Your task to perform on an android device: choose inbox layout in the gmail app Image 0: 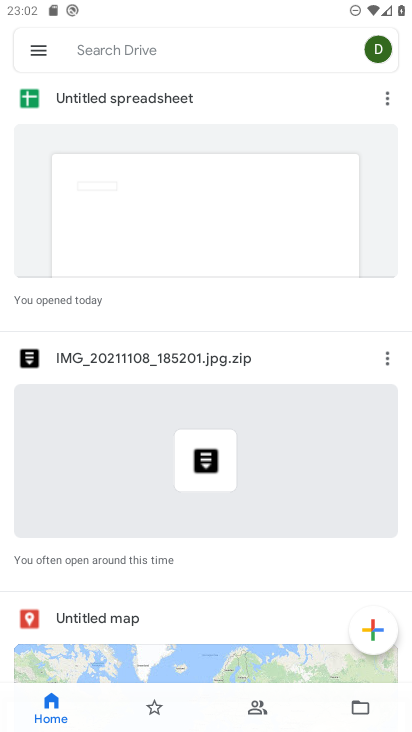
Step 0: press back button
Your task to perform on an android device: choose inbox layout in the gmail app Image 1: 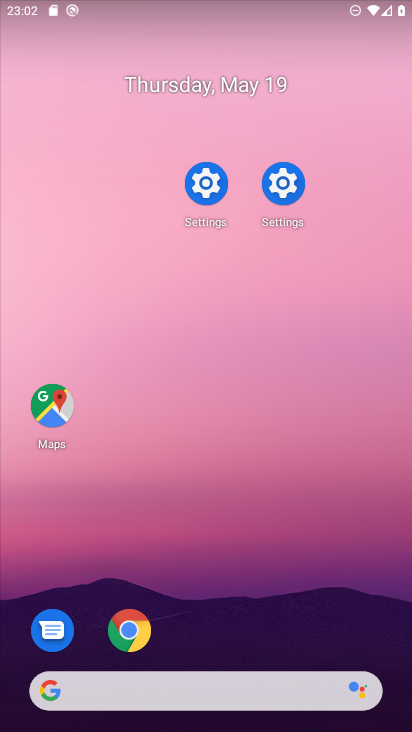
Step 1: drag from (229, 560) to (147, 108)
Your task to perform on an android device: choose inbox layout in the gmail app Image 2: 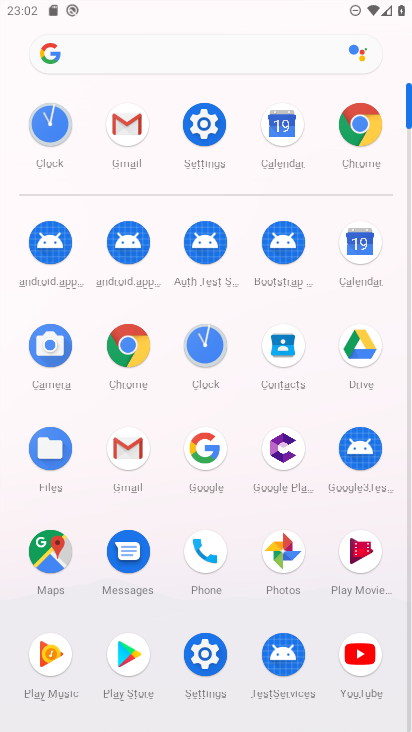
Step 2: click (119, 134)
Your task to perform on an android device: choose inbox layout in the gmail app Image 3: 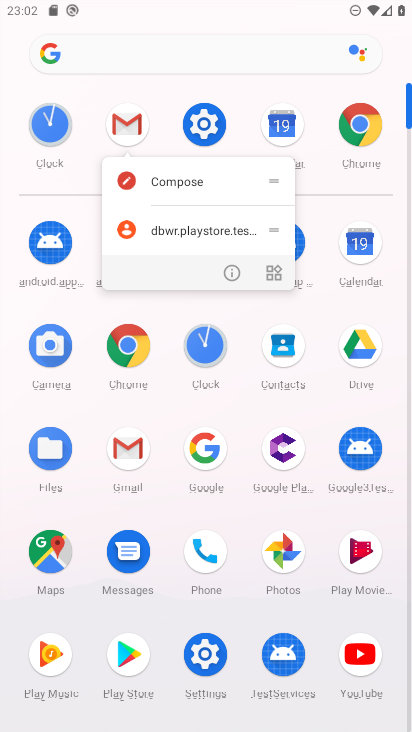
Step 3: click (130, 139)
Your task to perform on an android device: choose inbox layout in the gmail app Image 4: 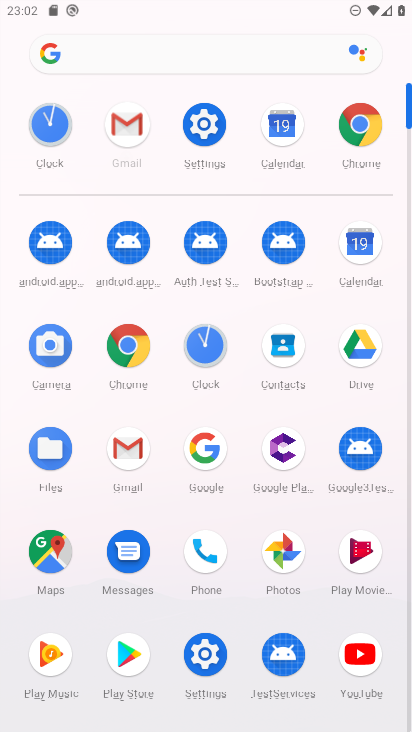
Step 4: click (130, 139)
Your task to perform on an android device: choose inbox layout in the gmail app Image 5: 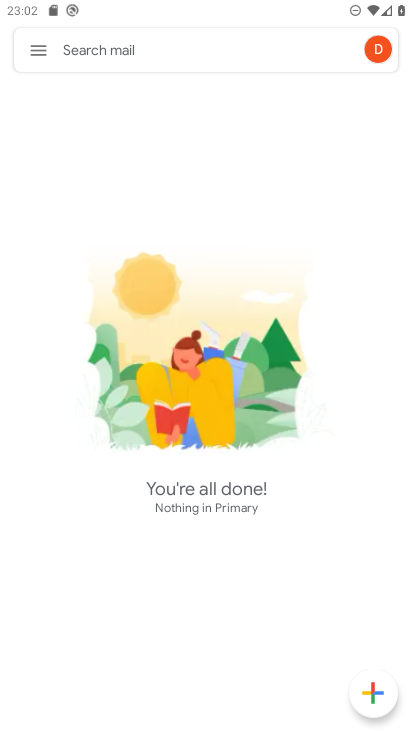
Step 5: click (42, 46)
Your task to perform on an android device: choose inbox layout in the gmail app Image 6: 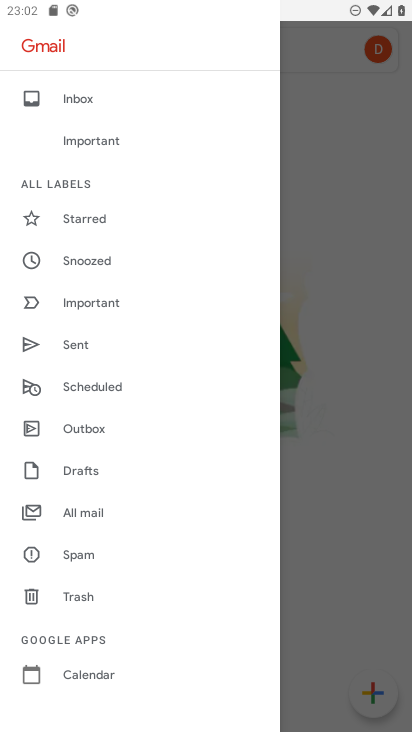
Step 6: click (75, 506)
Your task to perform on an android device: choose inbox layout in the gmail app Image 7: 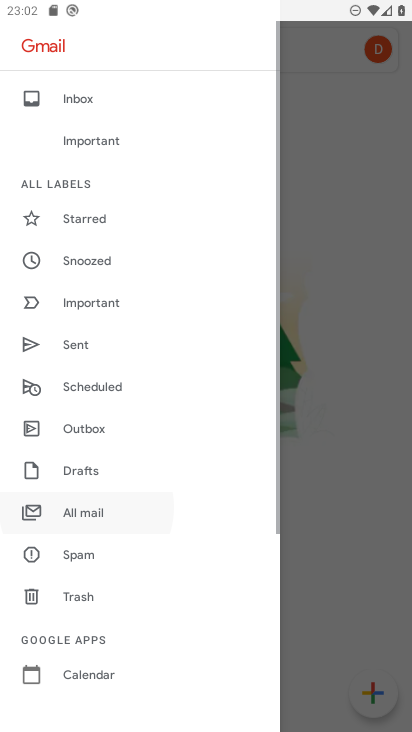
Step 7: click (75, 506)
Your task to perform on an android device: choose inbox layout in the gmail app Image 8: 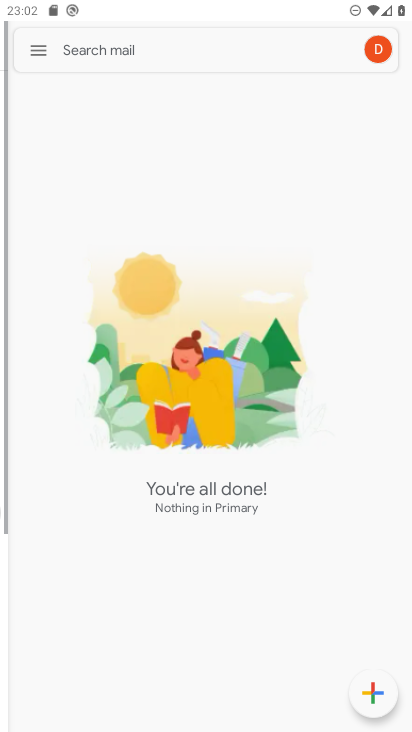
Step 8: click (76, 507)
Your task to perform on an android device: choose inbox layout in the gmail app Image 9: 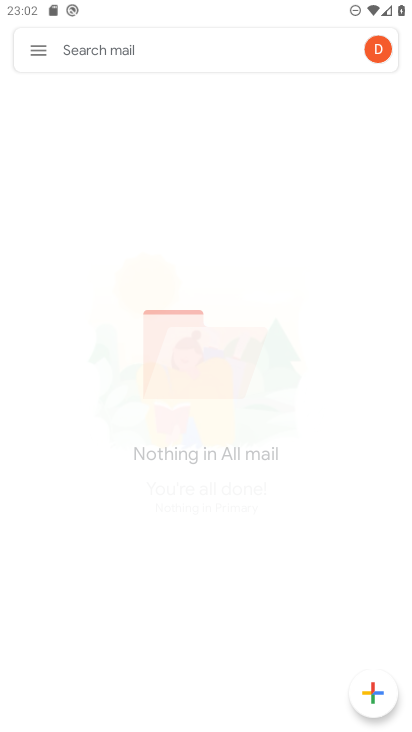
Step 9: click (76, 507)
Your task to perform on an android device: choose inbox layout in the gmail app Image 10: 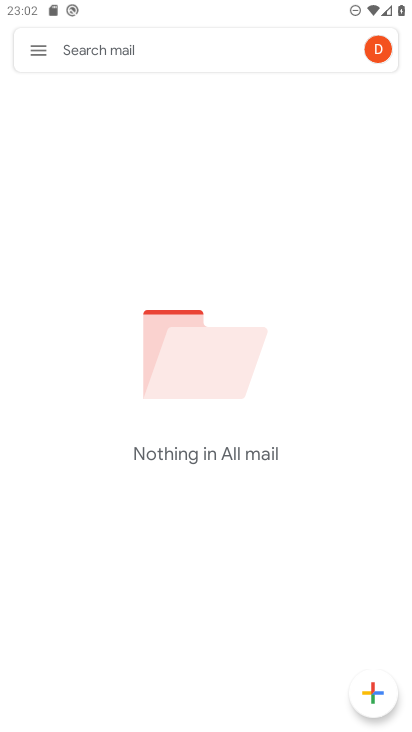
Step 10: click (76, 507)
Your task to perform on an android device: choose inbox layout in the gmail app Image 11: 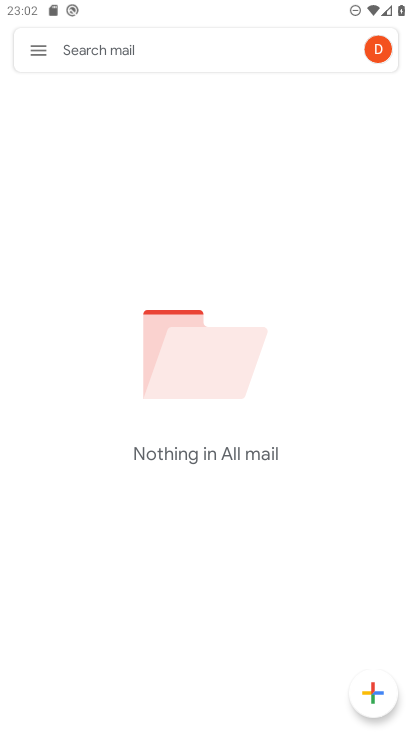
Step 11: task complete